Your task to perform on an android device: add a contact Image 0: 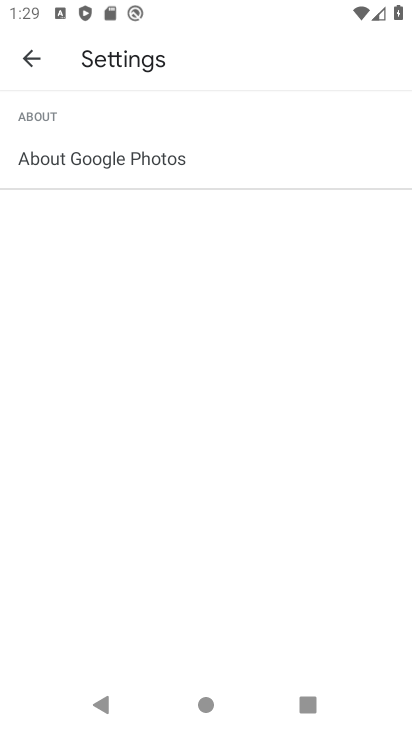
Step 0: press home button
Your task to perform on an android device: add a contact Image 1: 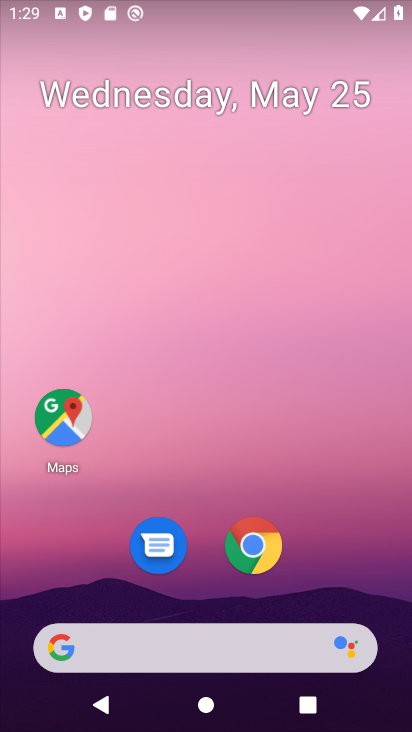
Step 1: drag from (331, 549) to (302, 125)
Your task to perform on an android device: add a contact Image 2: 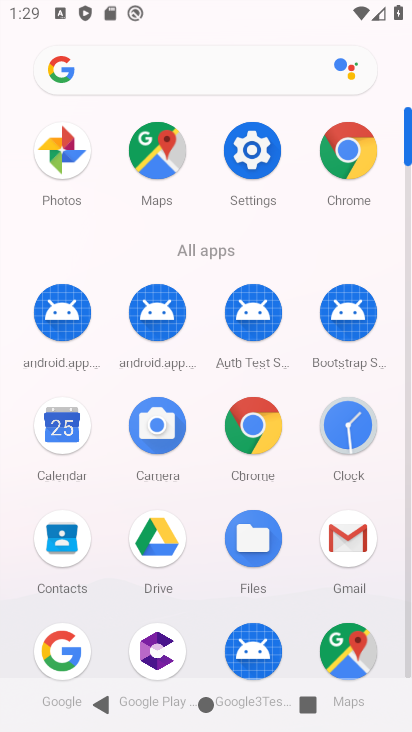
Step 2: click (64, 562)
Your task to perform on an android device: add a contact Image 3: 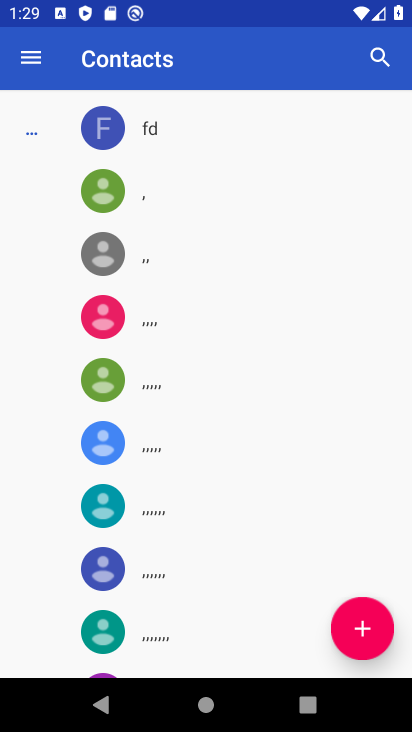
Step 3: click (351, 618)
Your task to perform on an android device: add a contact Image 4: 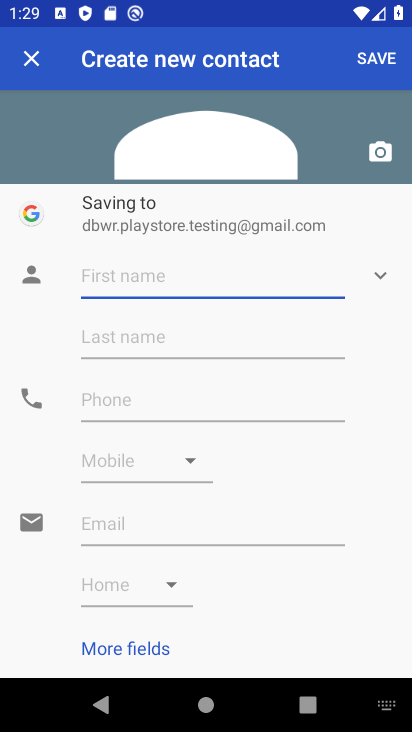
Step 4: type "fdvdf"
Your task to perform on an android device: add a contact Image 5: 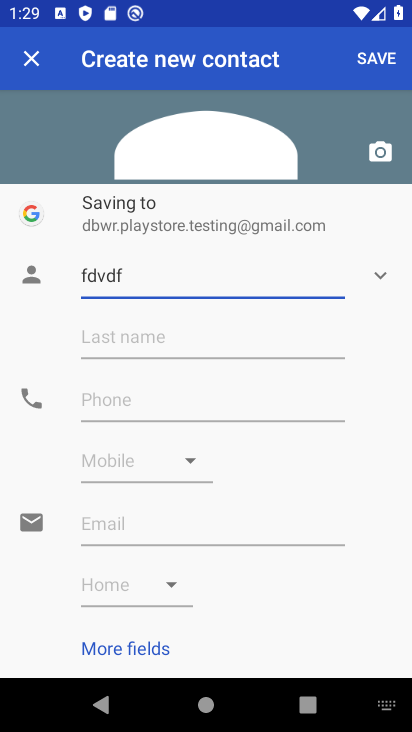
Step 5: click (369, 74)
Your task to perform on an android device: add a contact Image 6: 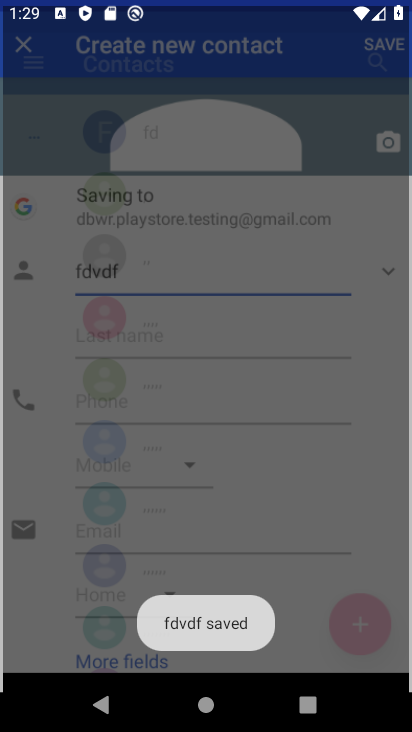
Step 6: task complete